Your task to perform on an android device: Do I have any events this weekend? Image 0: 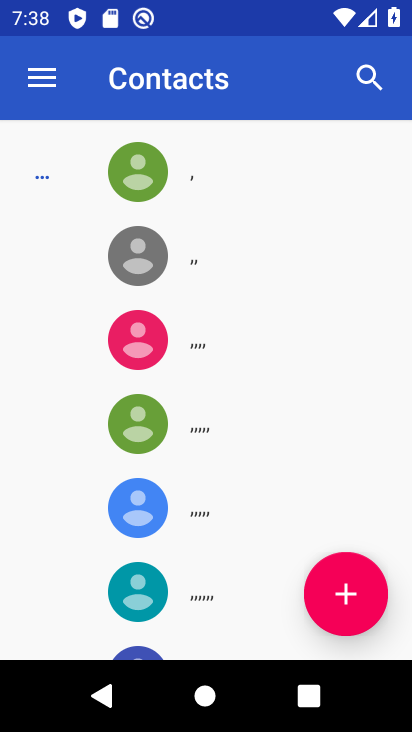
Step 0: press home button
Your task to perform on an android device: Do I have any events this weekend? Image 1: 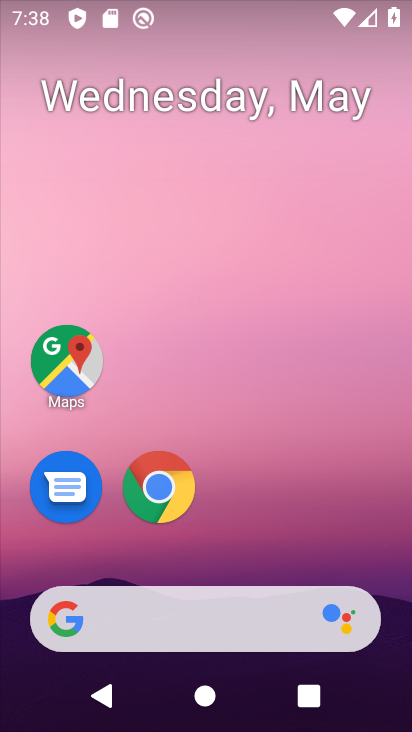
Step 1: drag from (247, 501) to (272, 0)
Your task to perform on an android device: Do I have any events this weekend? Image 2: 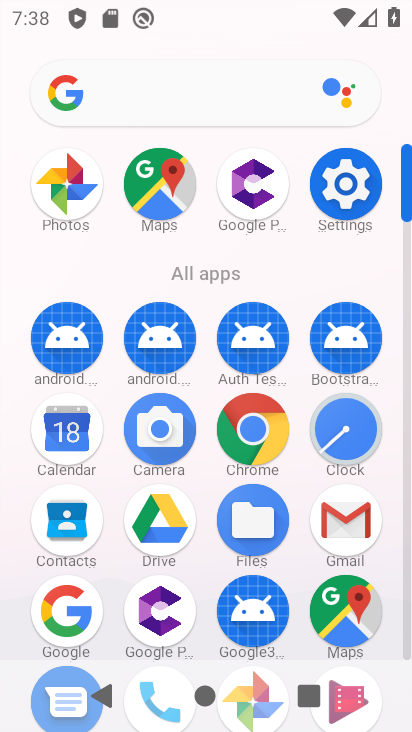
Step 2: click (70, 418)
Your task to perform on an android device: Do I have any events this weekend? Image 3: 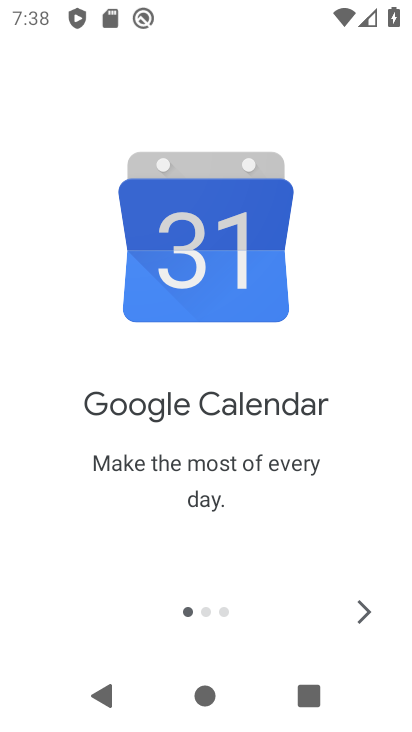
Step 3: click (361, 611)
Your task to perform on an android device: Do I have any events this weekend? Image 4: 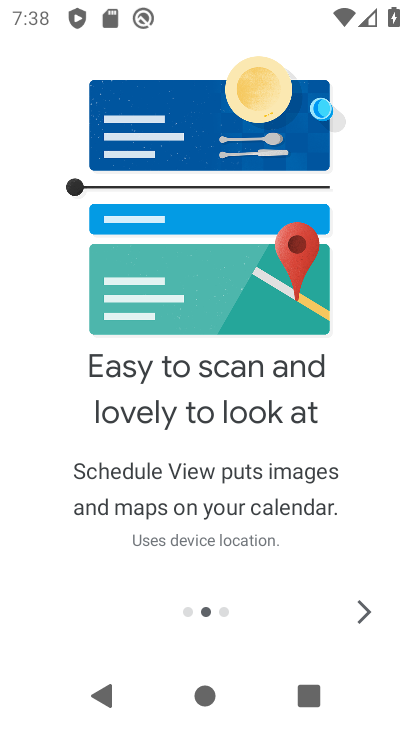
Step 4: click (361, 611)
Your task to perform on an android device: Do I have any events this weekend? Image 5: 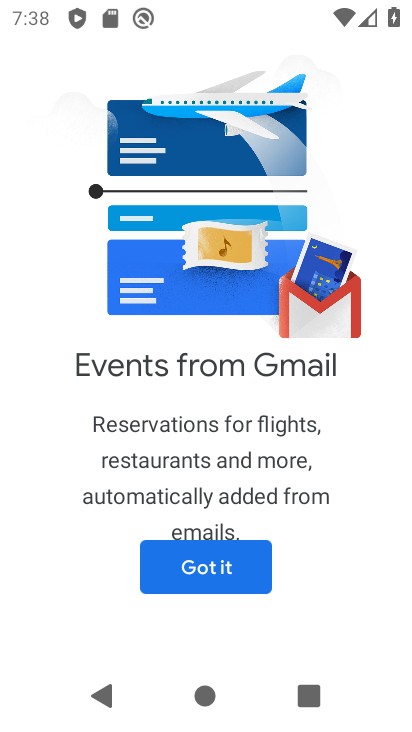
Step 5: click (248, 559)
Your task to perform on an android device: Do I have any events this weekend? Image 6: 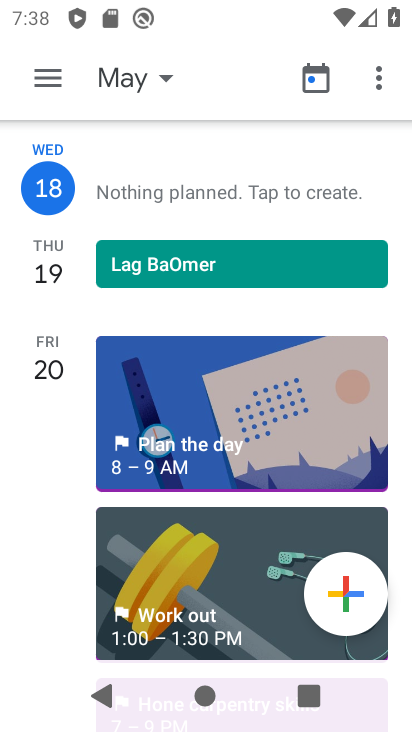
Step 6: task complete